Your task to perform on an android device: turn off priority inbox in the gmail app Image 0: 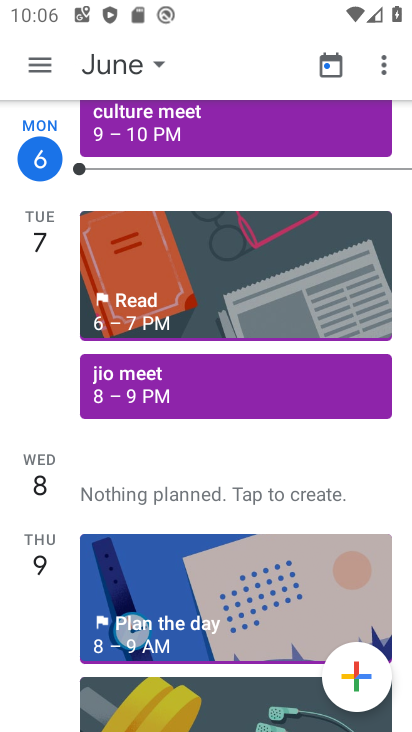
Step 0: press home button
Your task to perform on an android device: turn off priority inbox in the gmail app Image 1: 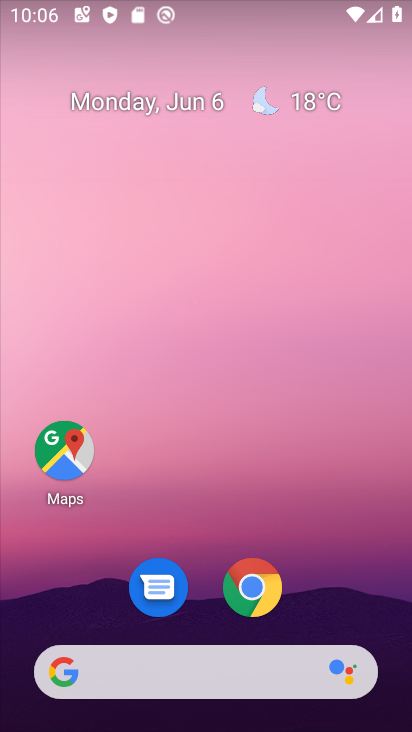
Step 1: click (311, 516)
Your task to perform on an android device: turn off priority inbox in the gmail app Image 2: 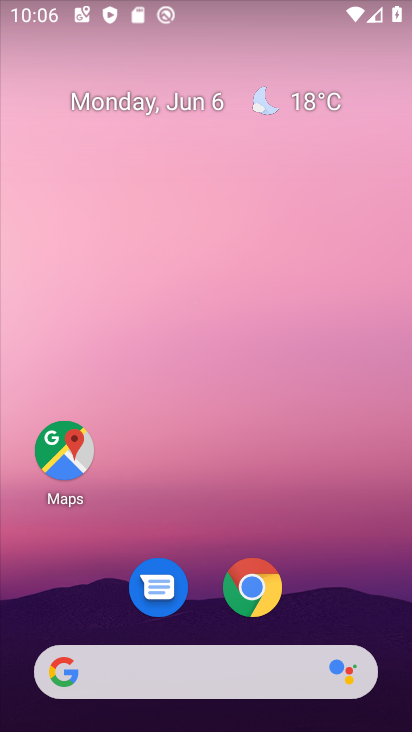
Step 2: click (331, 566)
Your task to perform on an android device: turn off priority inbox in the gmail app Image 3: 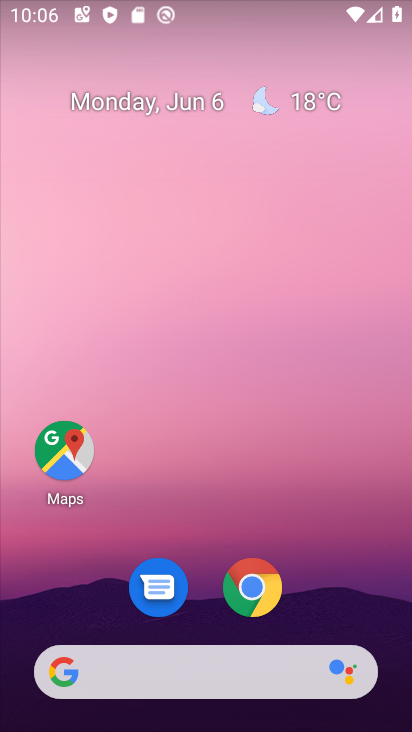
Step 3: drag from (367, 593) to (366, 340)
Your task to perform on an android device: turn off priority inbox in the gmail app Image 4: 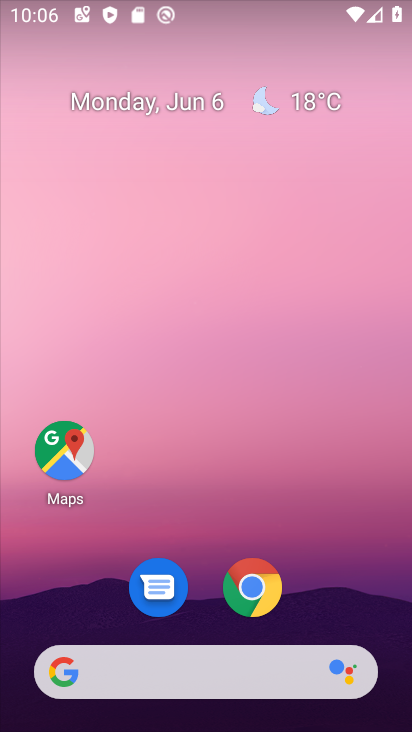
Step 4: drag from (356, 653) to (356, 343)
Your task to perform on an android device: turn off priority inbox in the gmail app Image 5: 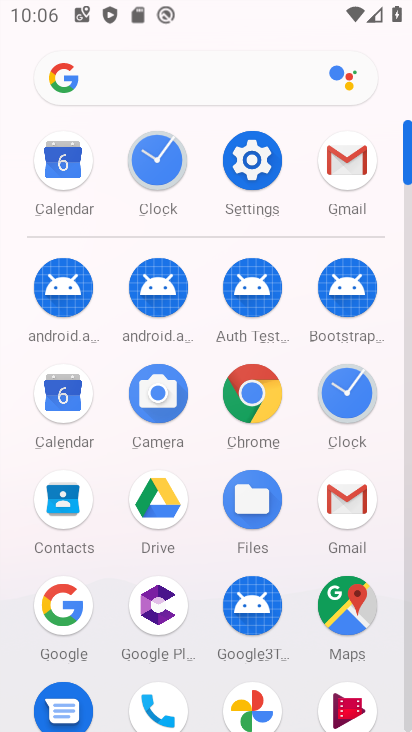
Step 5: click (334, 494)
Your task to perform on an android device: turn off priority inbox in the gmail app Image 6: 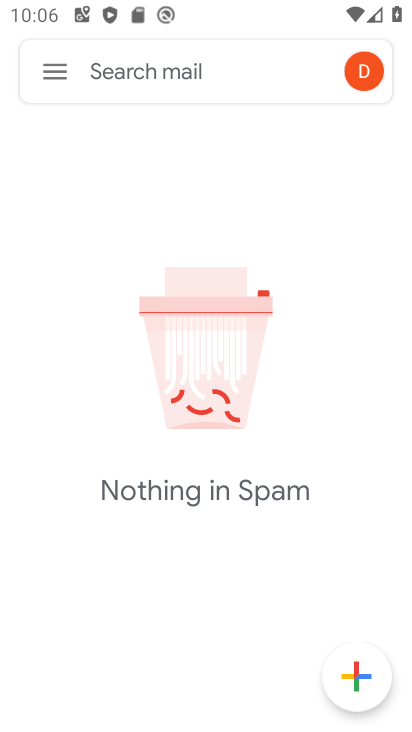
Step 6: click (55, 72)
Your task to perform on an android device: turn off priority inbox in the gmail app Image 7: 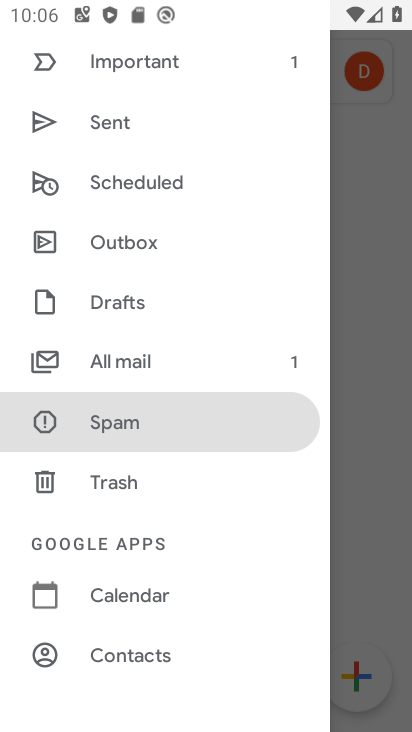
Step 7: drag from (174, 197) to (294, 573)
Your task to perform on an android device: turn off priority inbox in the gmail app Image 8: 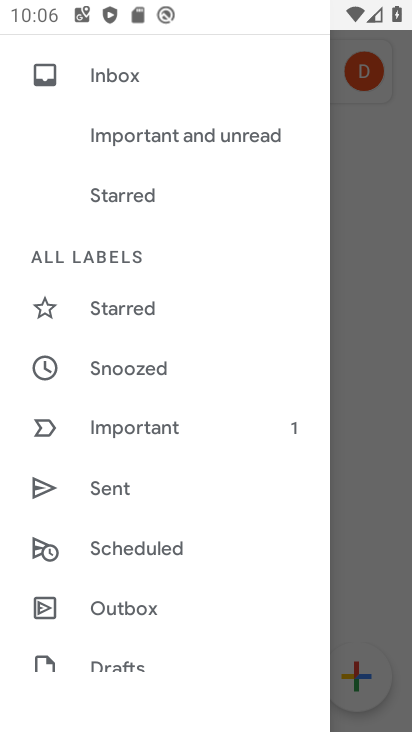
Step 8: drag from (275, 698) to (268, 476)
Your task to perform on an android device: turn off priority inbox in the gmail app Image 9: 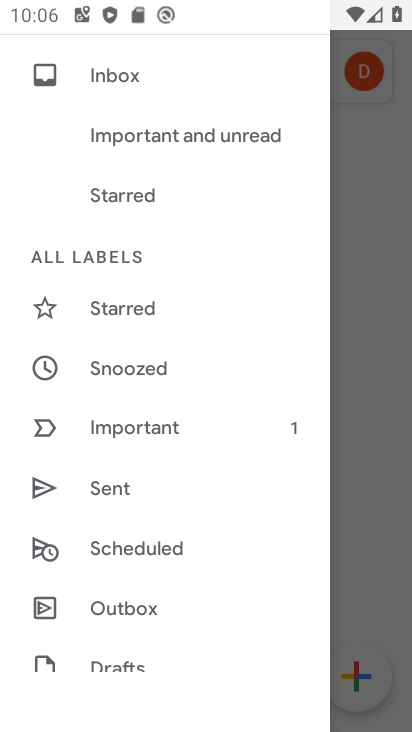
Step 9: drag from (251, 621) to (239, 21)
Your task to perform on an android device: turn off priority inbox in the gmail app Image 10: 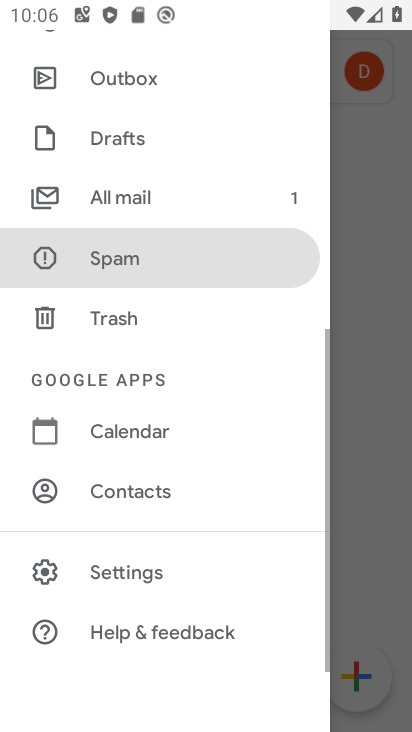
Step 10: click (153, 570)
Your task to perform on an android device: turn off priority inbox in the gmail app Image 11: 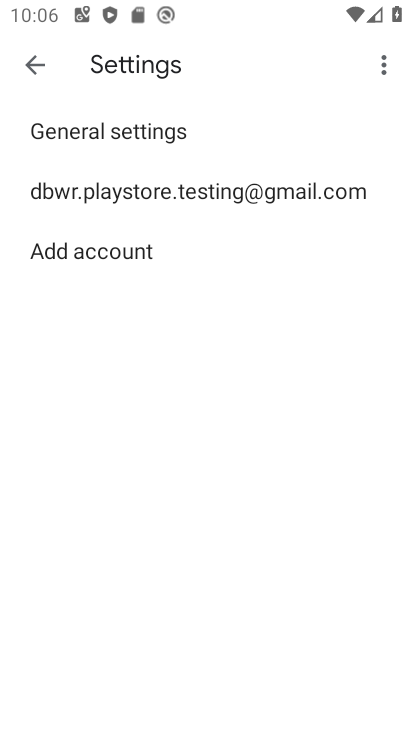
Step 11: click (167, 132)
Your task to perform on an android device: turn off priority inbox in the gmail app Image 12: 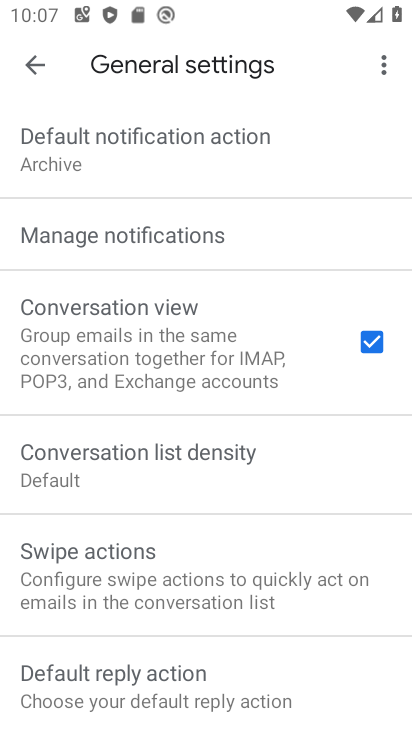
Step 12: drag from (200, 635) to (264, 181)
Your task to perform on an android device: turn off priority inbox in the gmail app Image 13: 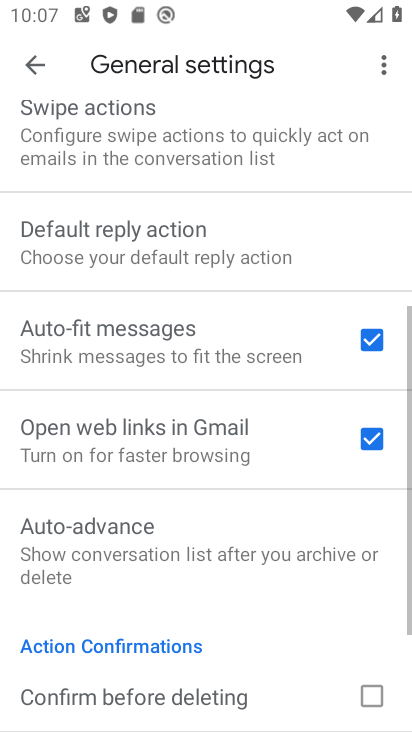
Step 13: drag from (193, 637) to (237, 176)
Your task to perform on an android device: turn off priority inbox in the gmail app Image 14: 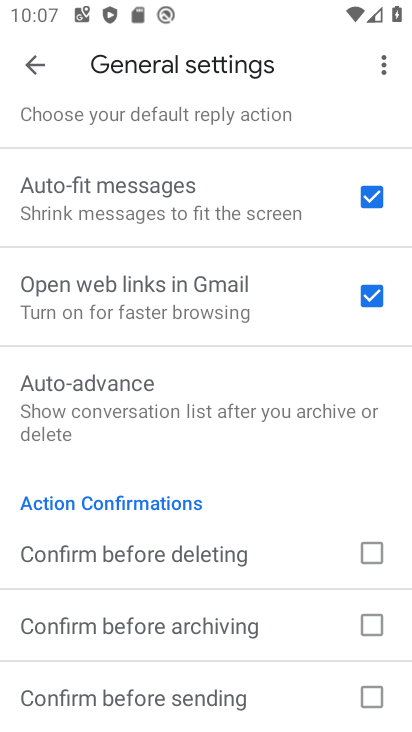
Step 14: drag from (234, 198) to (228, 687)
Your task to perform on an android device: turn off priority inbox in the gmail app Image 15: 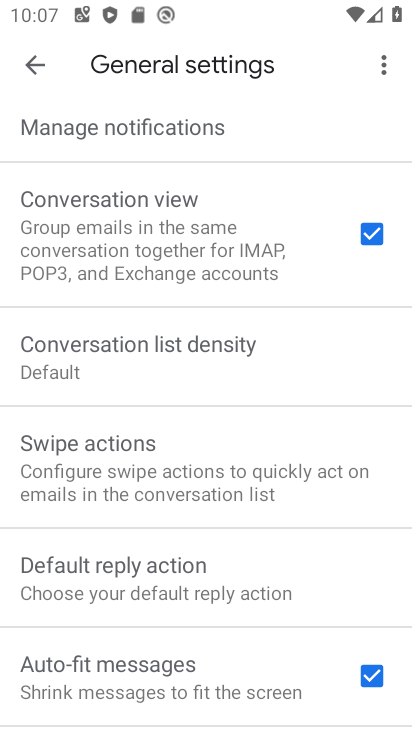
Step 15: drag from (238, 241) to (246, 641)
Your task to perform on an android device: turn off priority inbox in the gmail app Image 16: 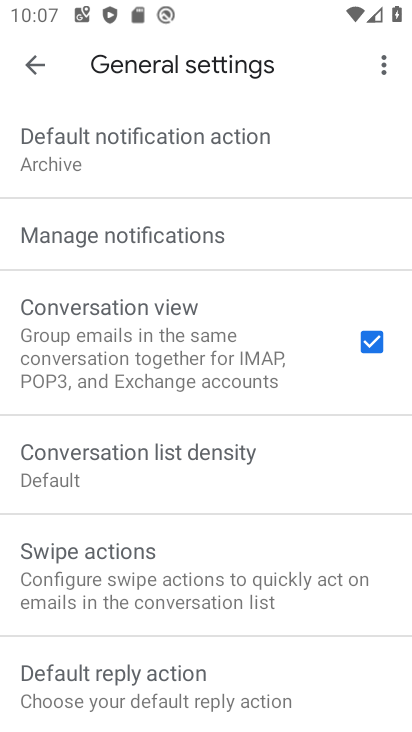
Step 16: click (270, 145)
Your task to perform on an android device: turn off priority inbox in the gmail app Image 17: 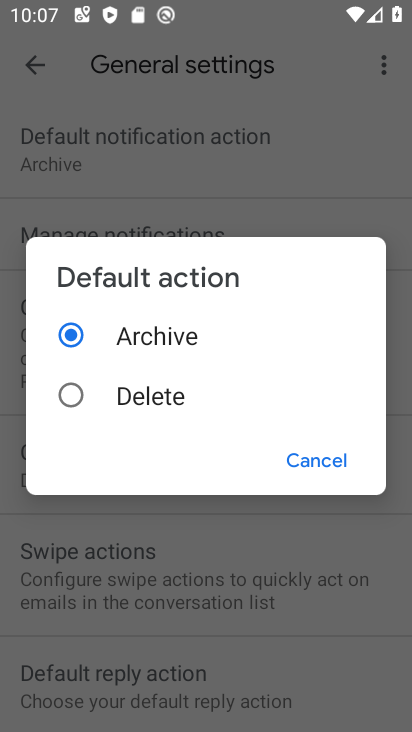
Step 17: click (289, 465)
Your task to perform on an android device: turn off priority inbox in the gmail app Image 18: 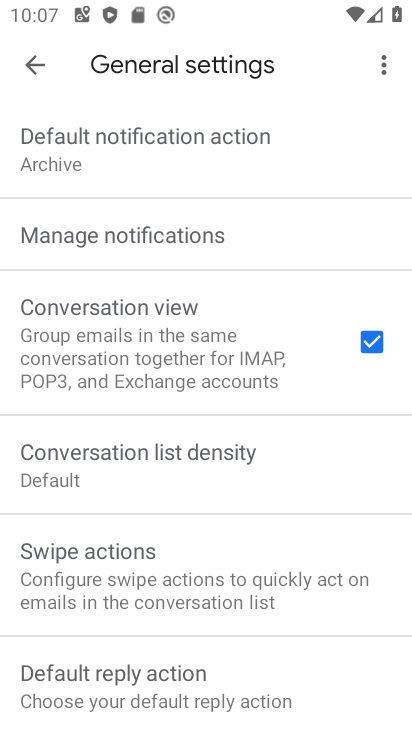
Step 18: click (382, 41)
Your task to perform on an android device: turn off priority inbox in the gmail app Image 19: 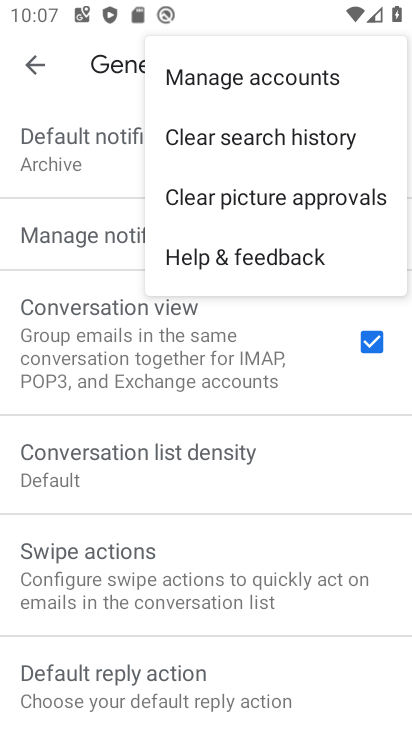
Step 19: task complete